Your task to perform on an android device: Open Amazon Image 0: 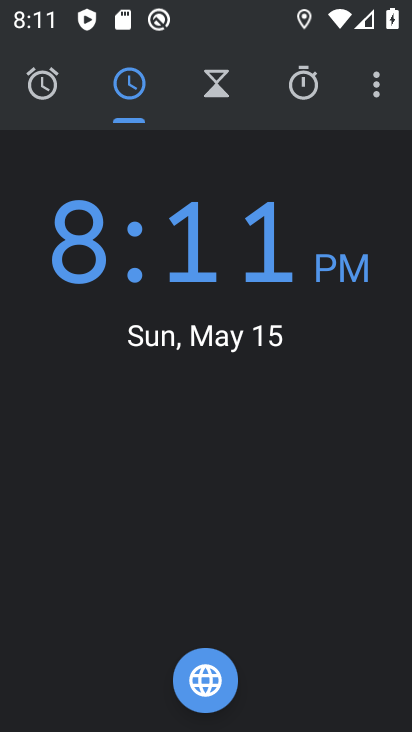
Step 0: press home button
Your task to perform on an android device: Open Amazon Image 1: 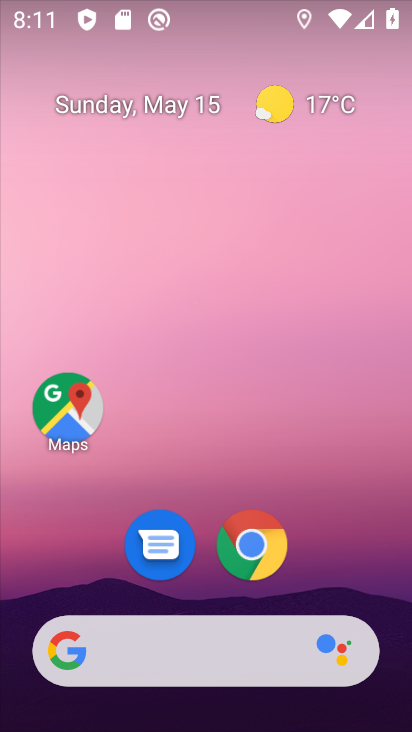
Step 1: click (254, 554)
Your task to perform on an android device: Open Amazon Image 2: 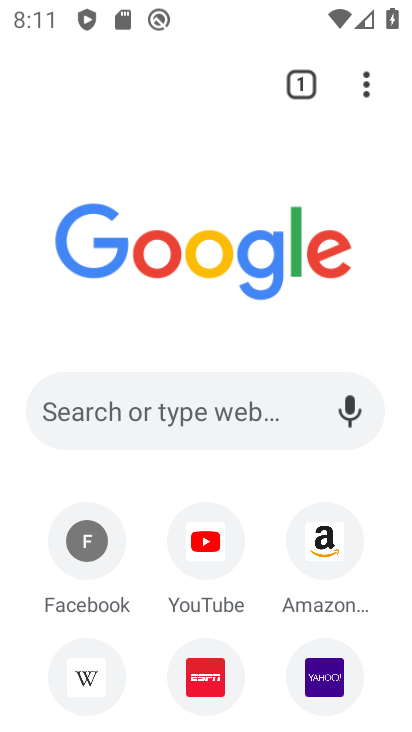
Step 2: click (323, 533)
Your task to perform on an android device: Open Amazon Image 3: 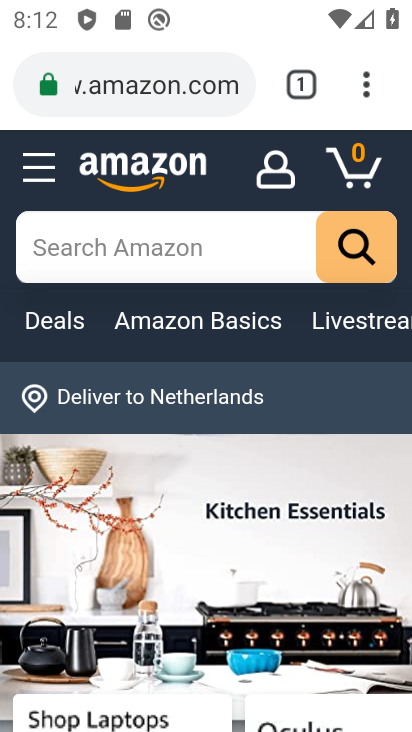
Step 3: task complete